Your task to perform on an android device: find which apps use the phone's location Image 0: 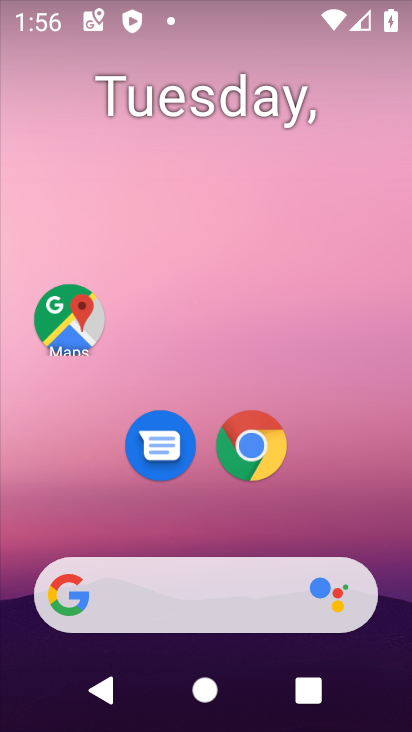
Step 0: drag from (296, 399) to (108, 0)
Your task to perform on an android device: find which apps use the phone's location Image 1: 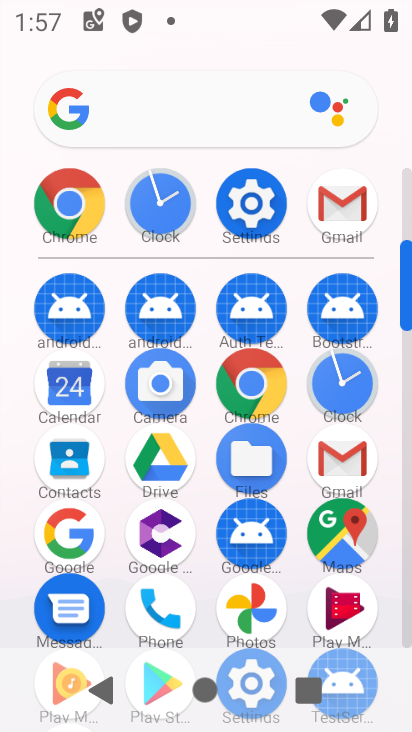
Step 1: click (253, 214)
Your task to perform on an android device: find which apps use the phone's location Image 2: 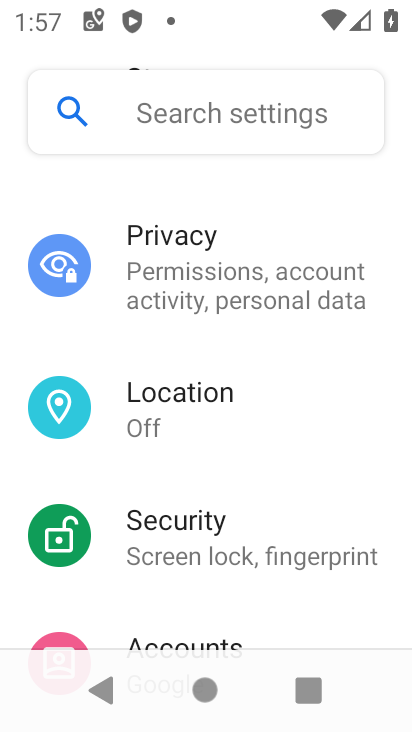
Step 2: drag from (233, 564) to (107, 217)
Your task to perform on an android device: find which apps use the phone's location Image 3: 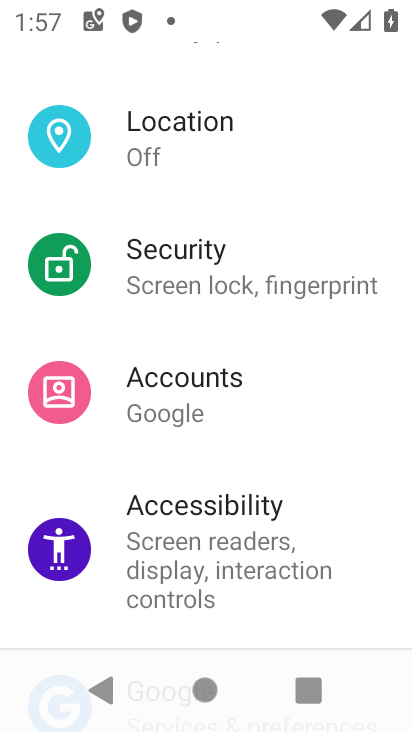
Step 3: drag from (260, 630) to (150, 269)
Your task to perform on an android device: find which apps use the phone's location Image 4: 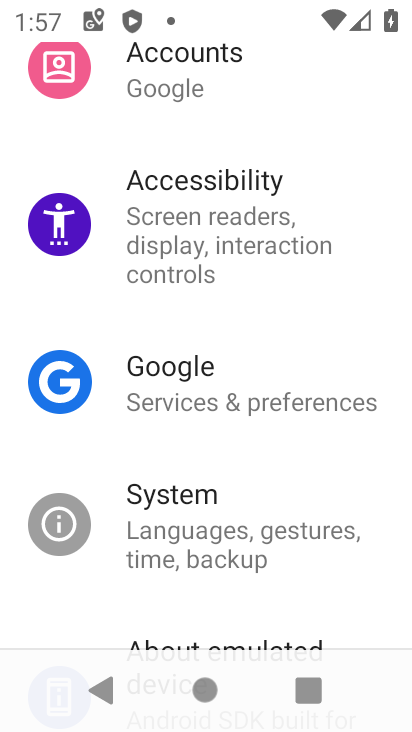
Step 4: drag from (185, 548) to (56, 168)
Your task to perform on an android device: find which apps use the phone's location Image 5: 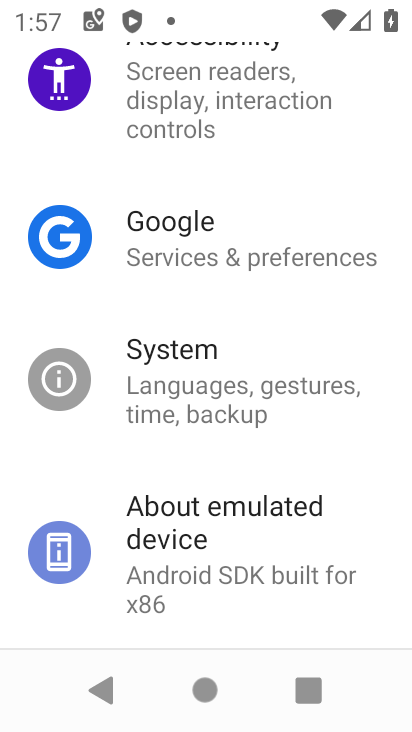
Step 5: drag from (273, 568) to (235, 243)
Your task to perform on an android device: find which apps use the phone's location Image 6: 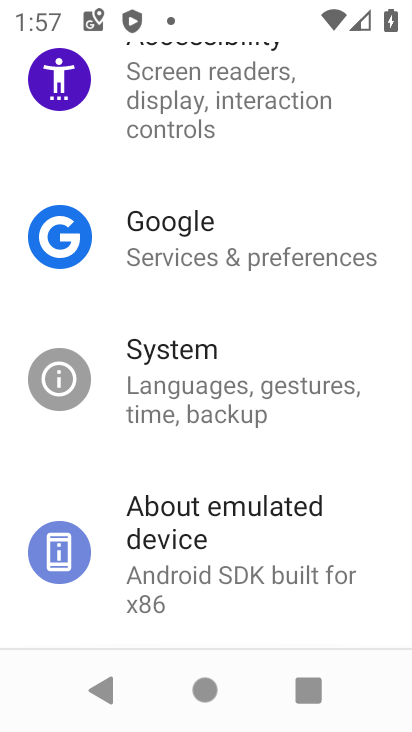
Step 6: drag from (254, 330) to (337, 641)
Your task to perform on an android device: find which apps use the phone's location Image 7: 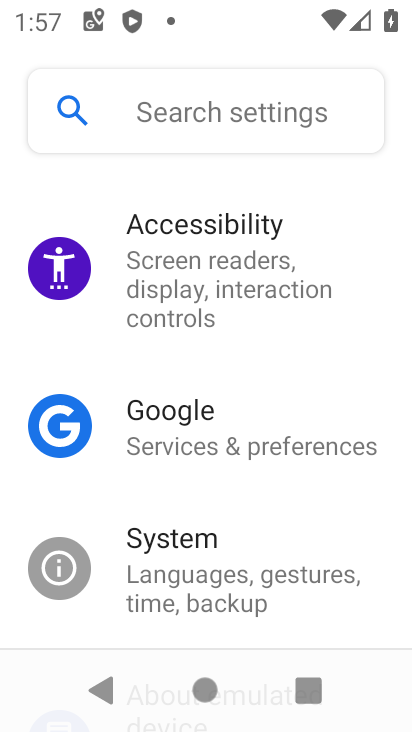
Step 7: drag from (211, 293) to (317, 648)
Your task to perform on an android device: find which apps use the phone's location Image 8: 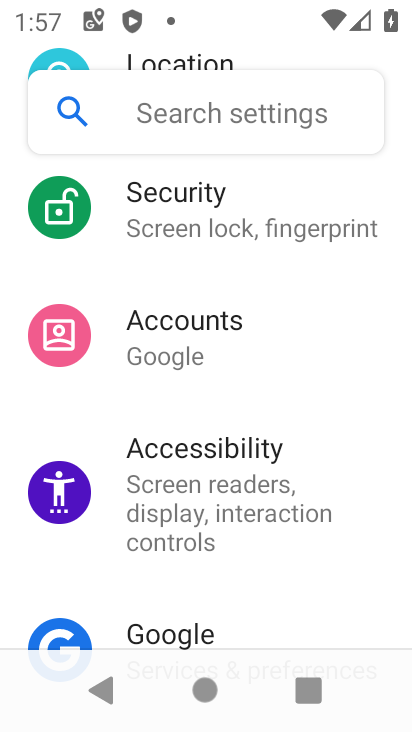
Step 8: drag from (214, 256) to (293, 689)
Your task to perform on an android device: find which apps use the phone's location Image 9: 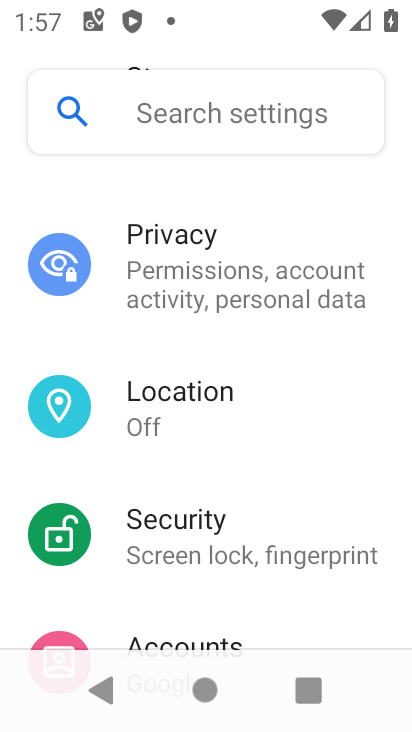
Step 9: click (185, 387)
Your task to perform on an android device: find which apps use the phone's location Image 10: 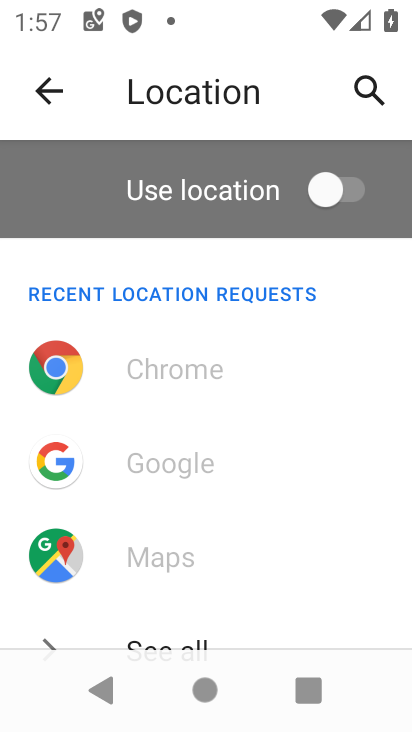
Step 10: task complete